Your task to perform on an android device: Open the phone app and click the voicemail tab. Image 0: 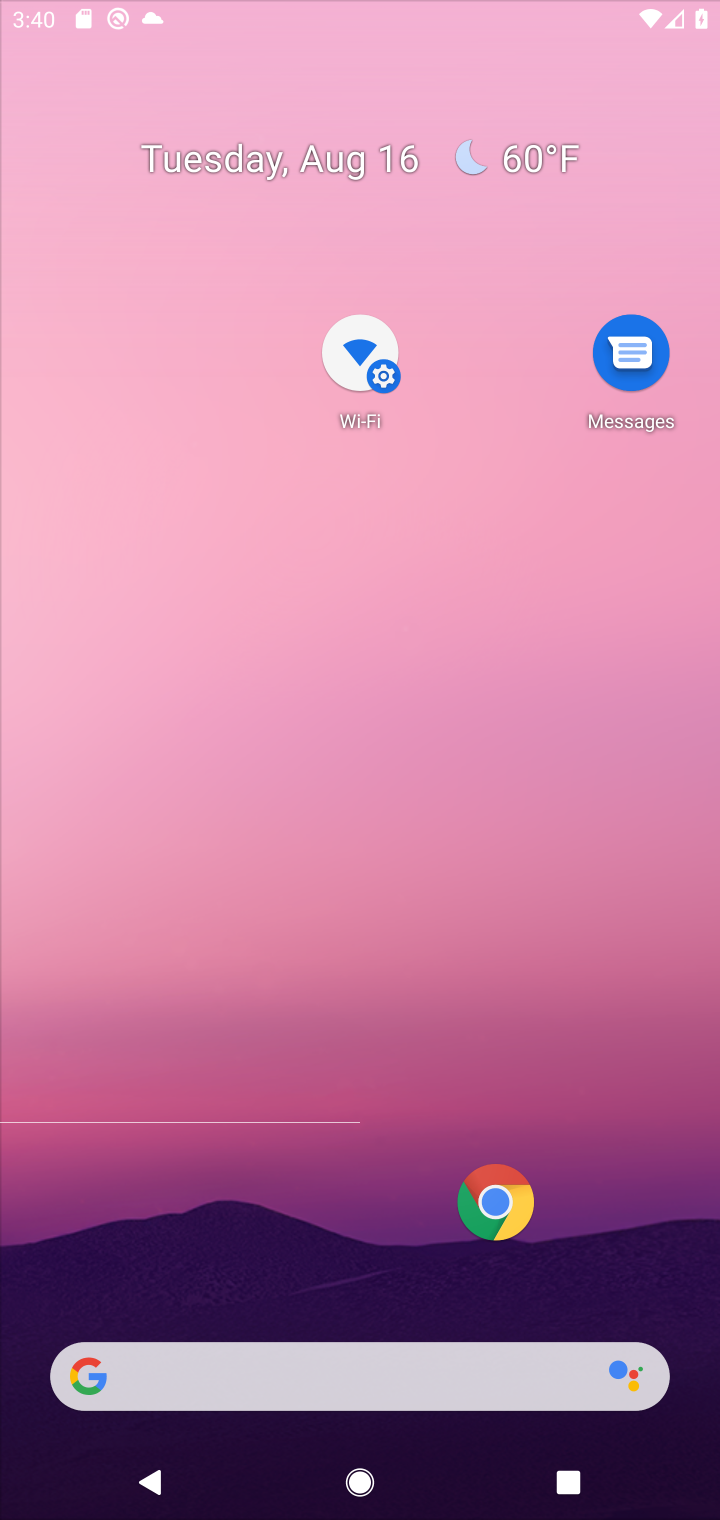
Step 0: press home button
Your task to perform on an android device: Open the phone app and click the voicemail tab. Image 1: 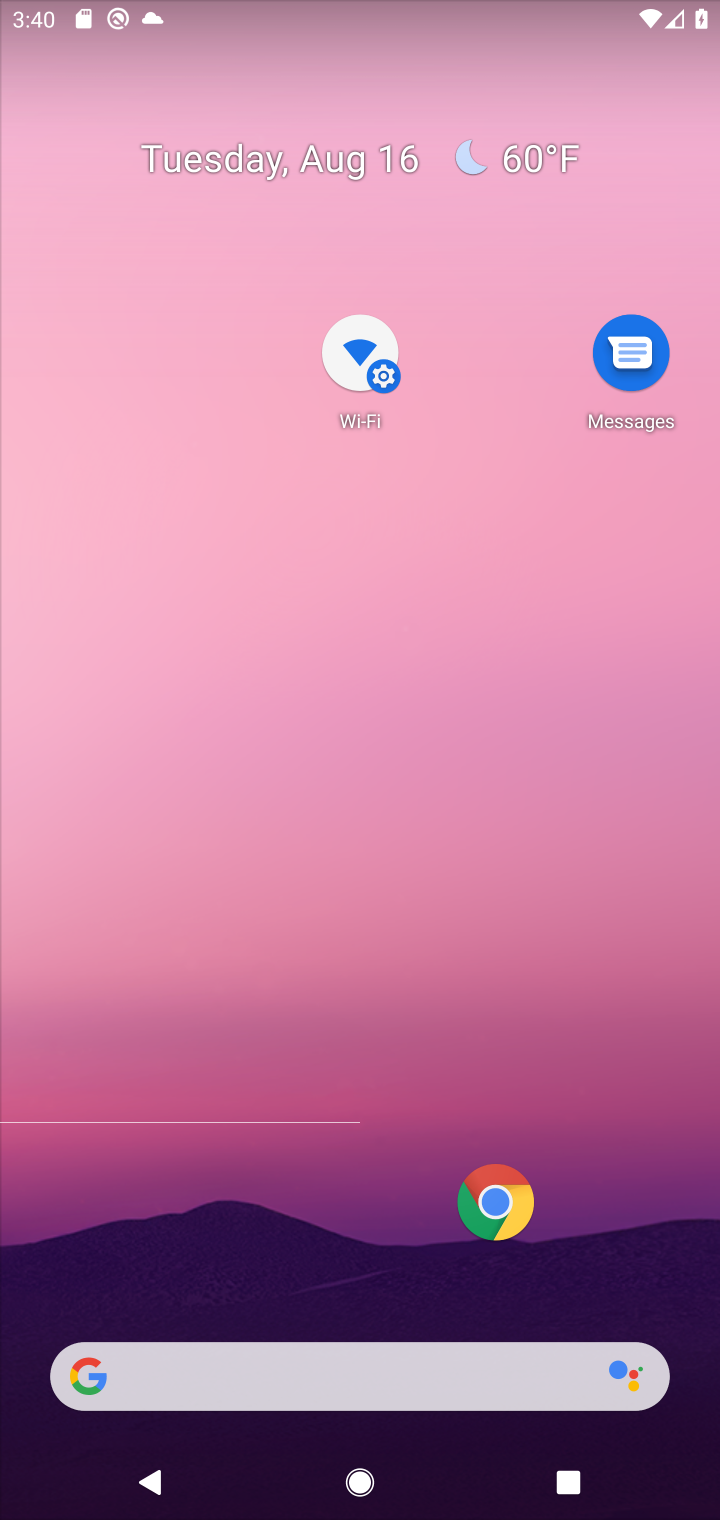
Step 1: drag from (209, 639) to (341, 173)
Your task to perform on an android device: Open the phone app and click the voicemail tab. Image 2: 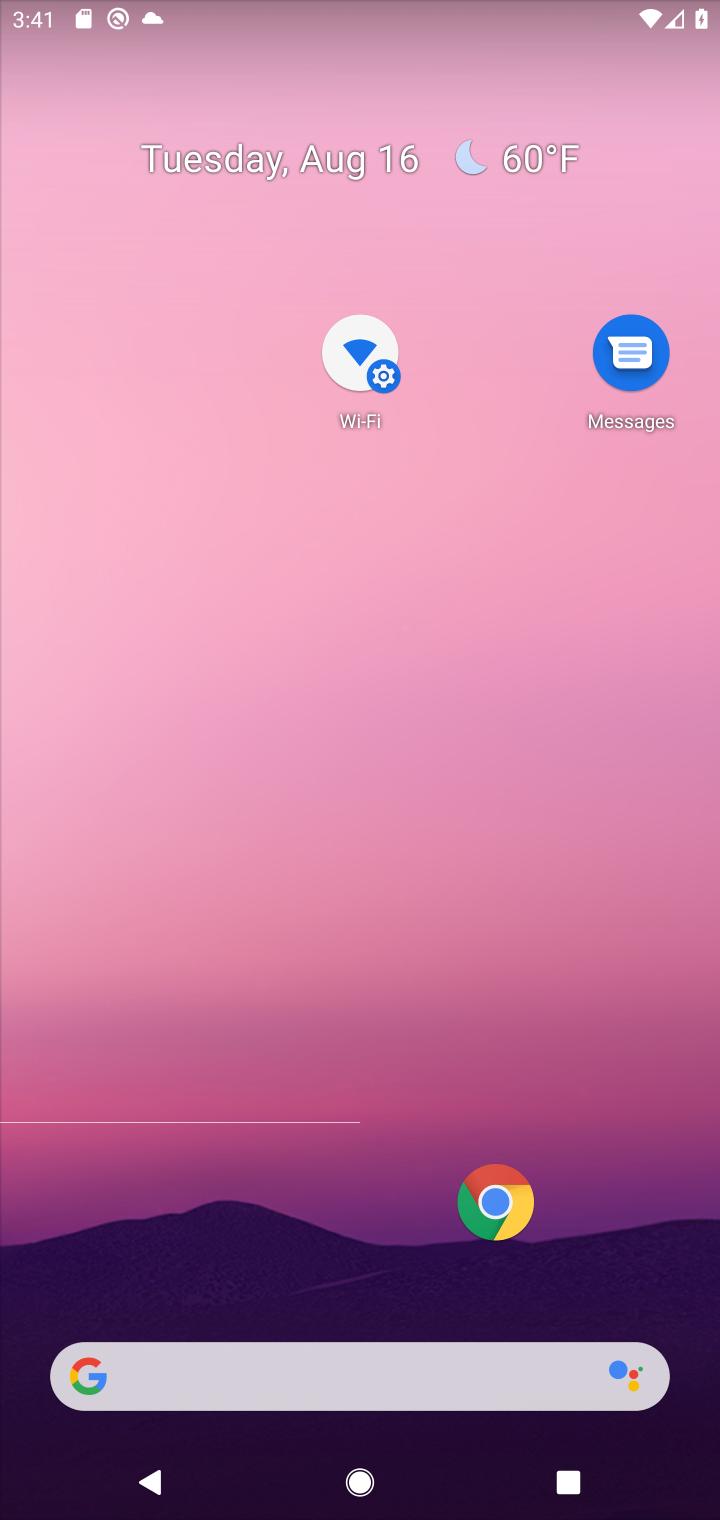
Step 2: click (482, 51)
Your task to perform on an android device: Open the phone app and click the voicemail tab. Image 3: 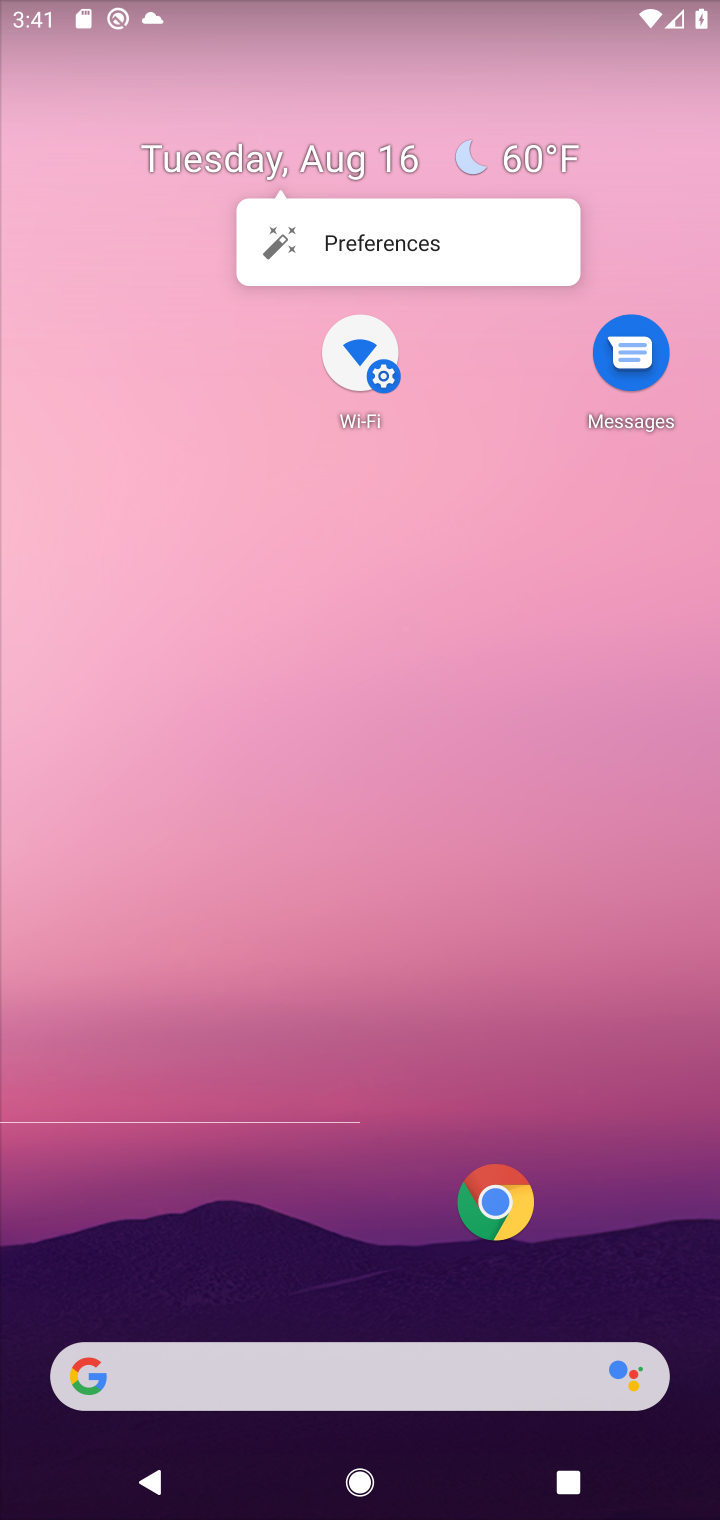
Step 3: drag from (102, 1091) to (401, 68)
Your task to perform on an android device: Open the phone app and click the voicemail tab. Image 4: 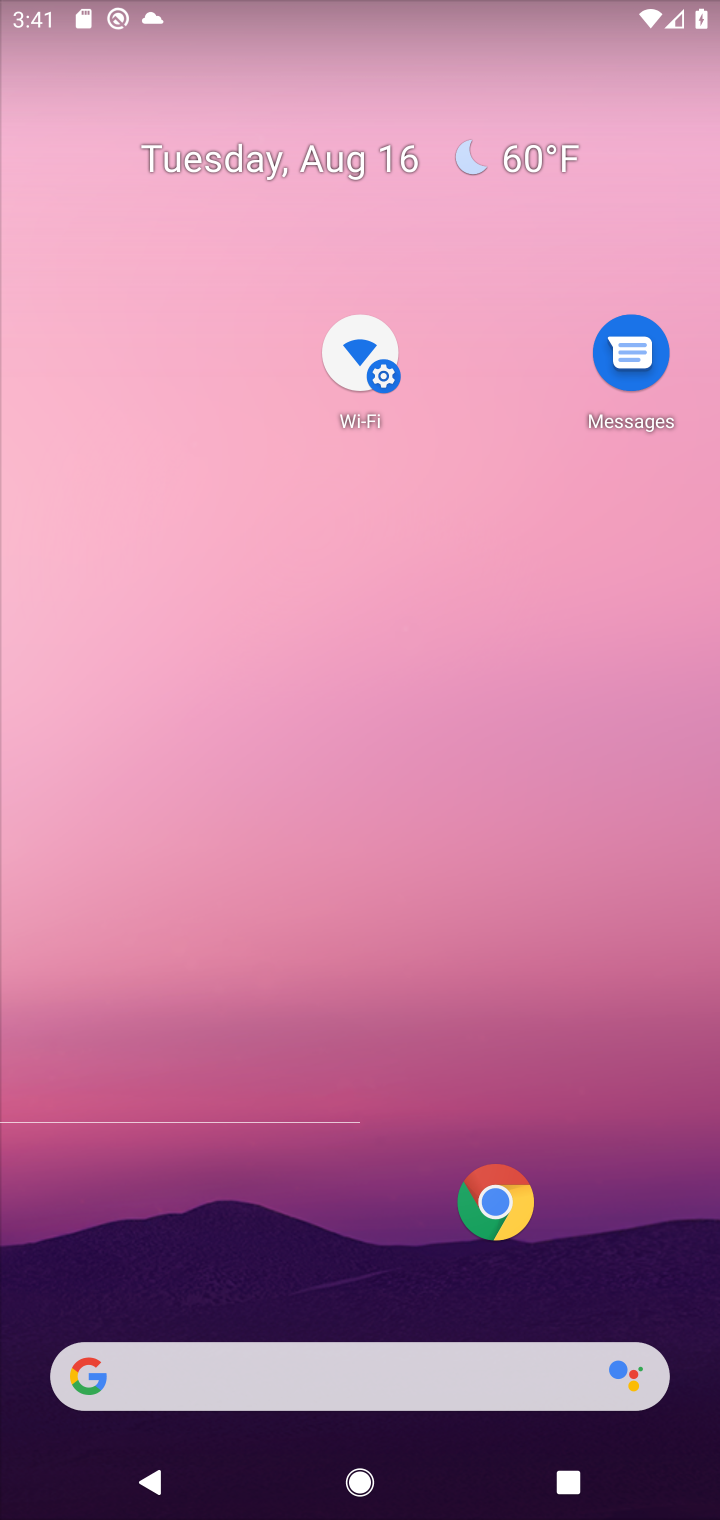
Step 4: drag from (139, 776) to (468, 97)
Your task to perform on an android device: Open the phone app and click the voicemail tab. Image 5: 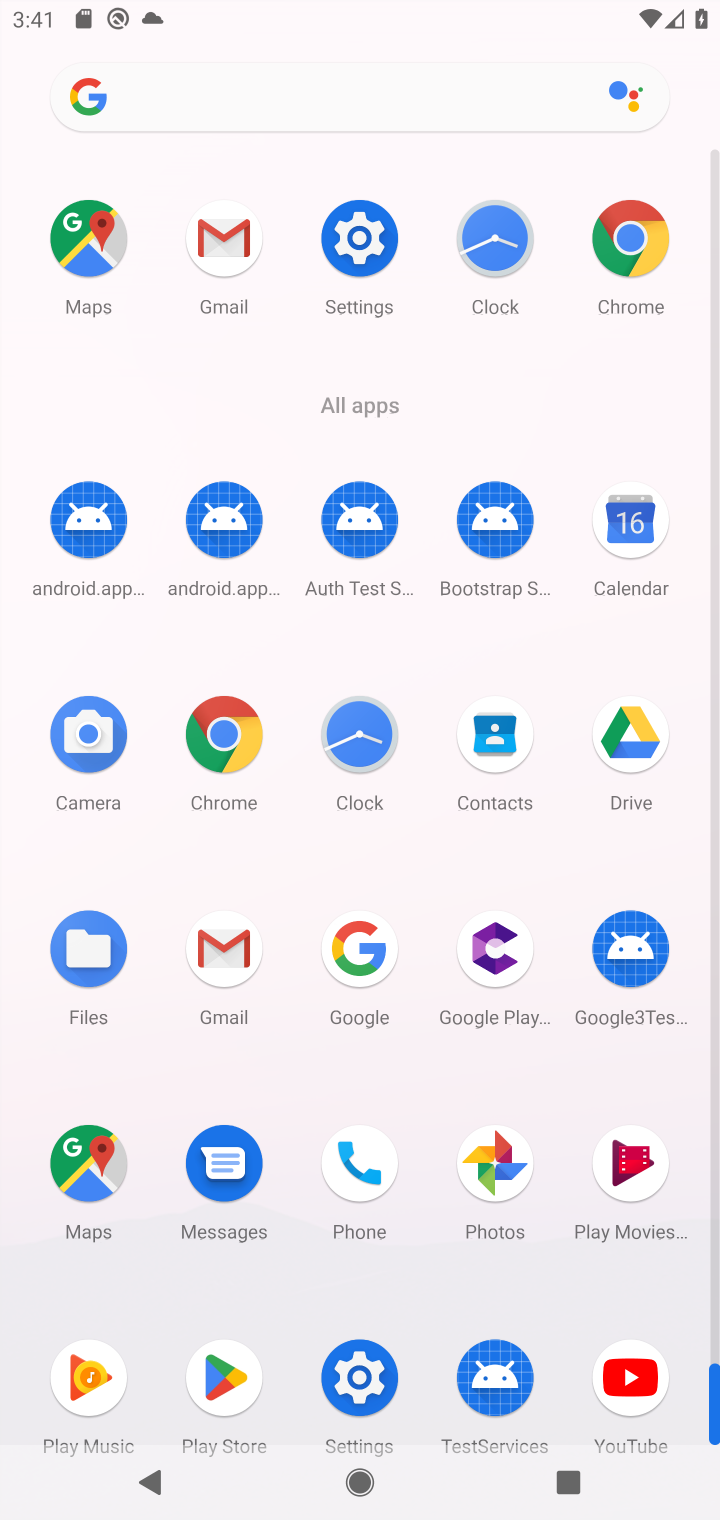
Step 5: click (369, 1161)
Your task to perform on an android device: Open the phone app and click the voicemail tab. Image 6: 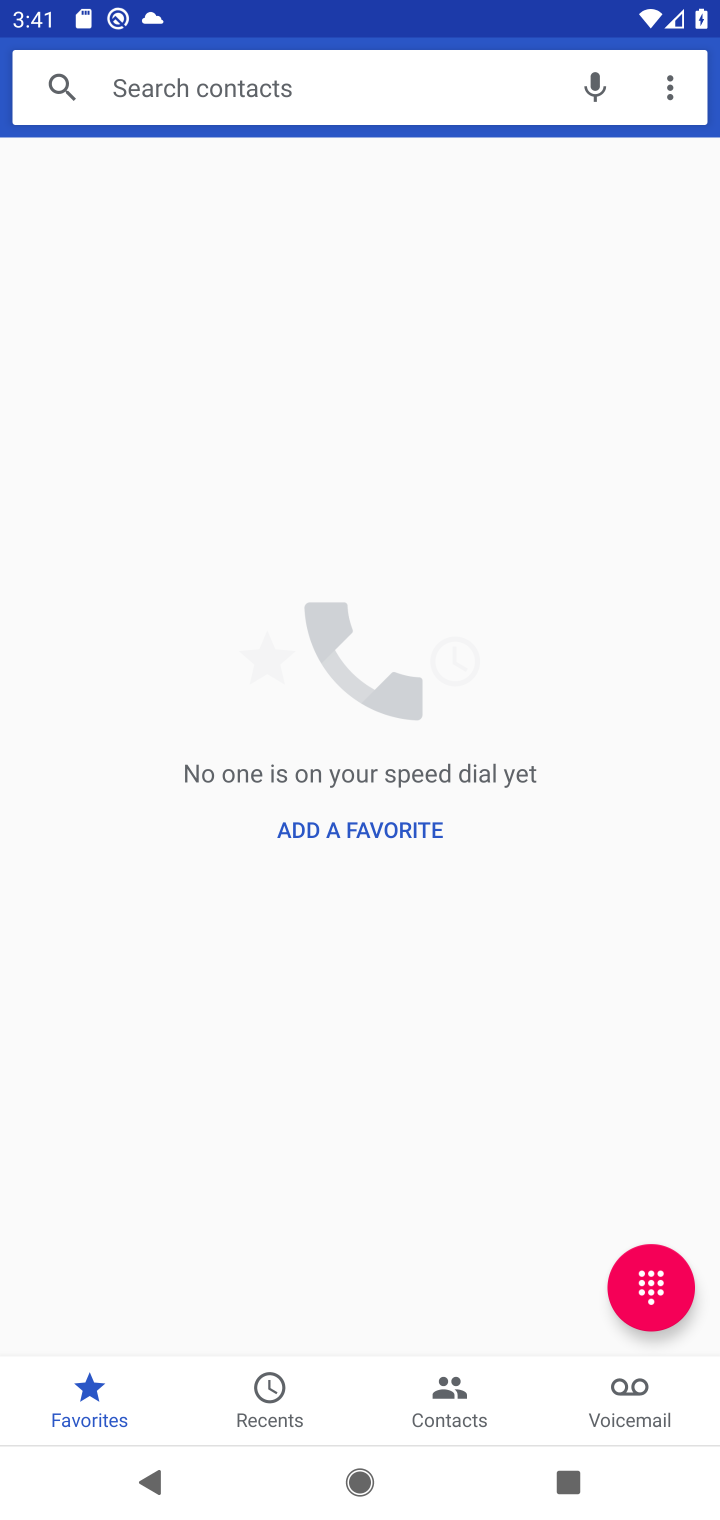
Step 6: click (634, 1401)
Your task to perform on an android device: Open the phone app and click the voicemail tab. Image 7: 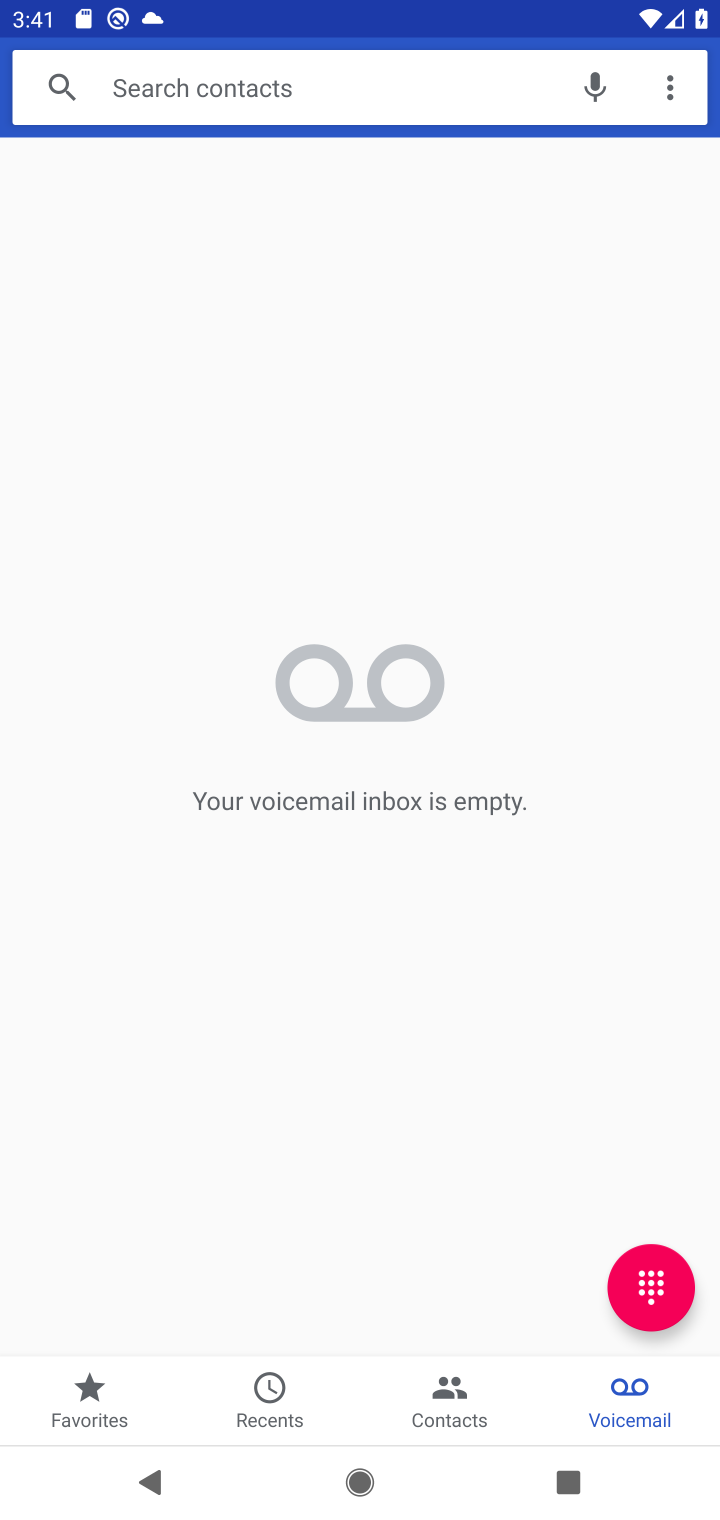
Step 7: task complete